Your task to perform on an android device: see tabs open on other devices in the chrome app Image 0: 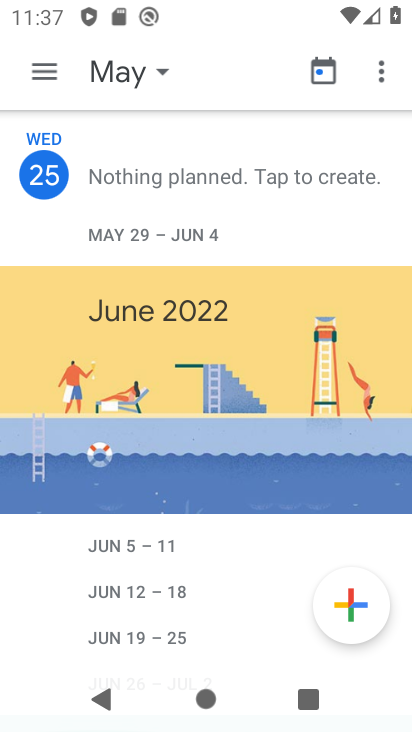
Step 0: press home button
Your task to perform on an android device: see tabs open on other devices in the chrome app Image 1: 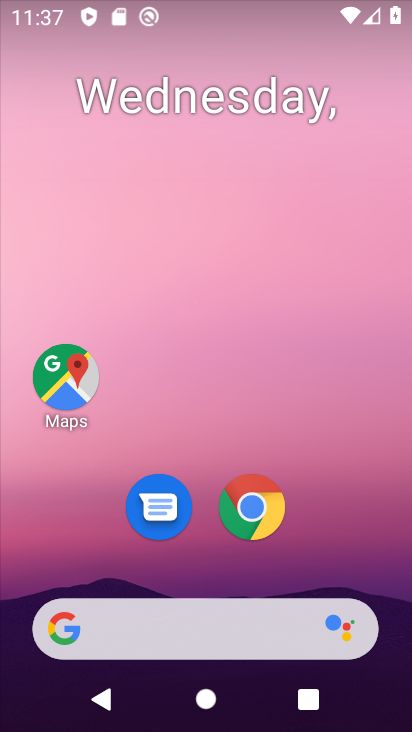
Step 1: click (228, 510)
Your task to perform on an android device: see tabs open on other devices in the chrome app Image 2: 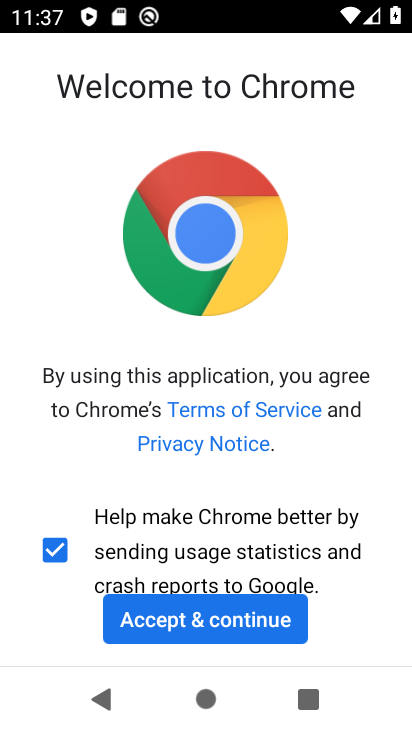
Step 2: click (194, 607)
Your task to perform on an android device: see tabs open on other devices in the chrome app Image 3: 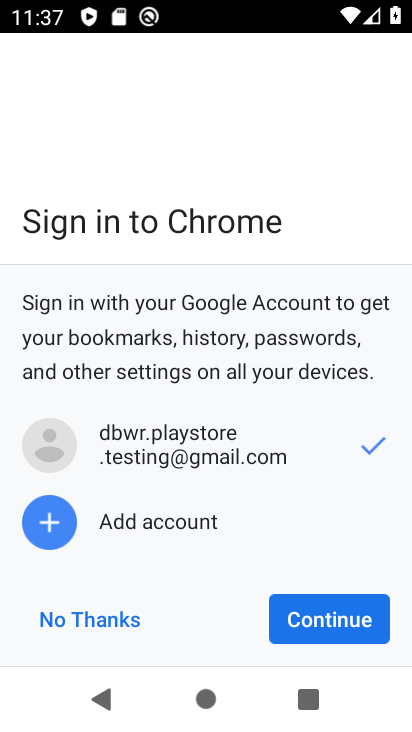
Step 3: click (288, 623)
Your task to perform on an android device: see tabs open on other devices in the chrome app Image 4: 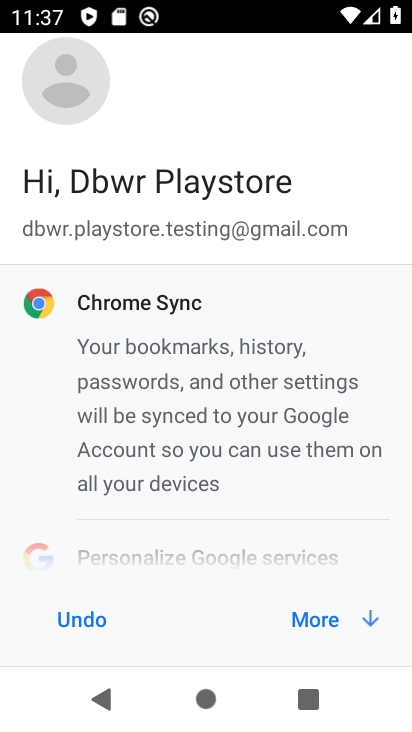
Step 4: click (343, 627)
Your task to perform on an android device: see tabs open on other devices in the chrome app Image 5: 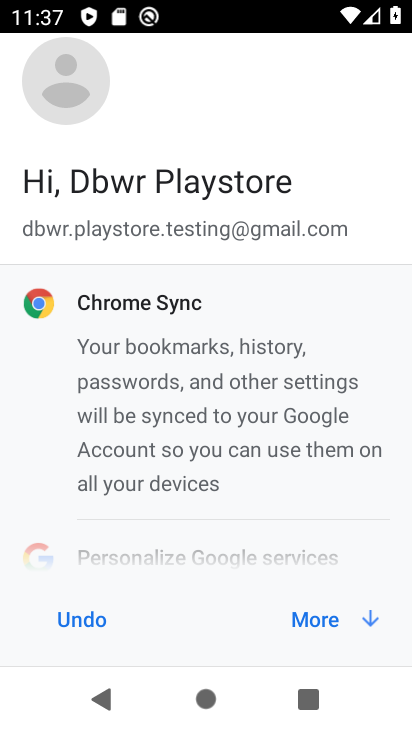
Step 5: click (343, 627)
Your task to perform on an android device: see tabs open on other devices in the chrome app Image 6: 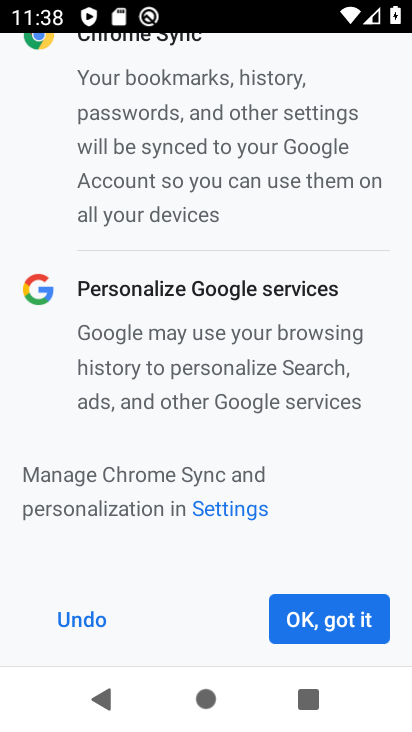
Step 6: click (343, 627)
Your task to perform on an android device: see tabs open on other devices in the chrome app Image 7: 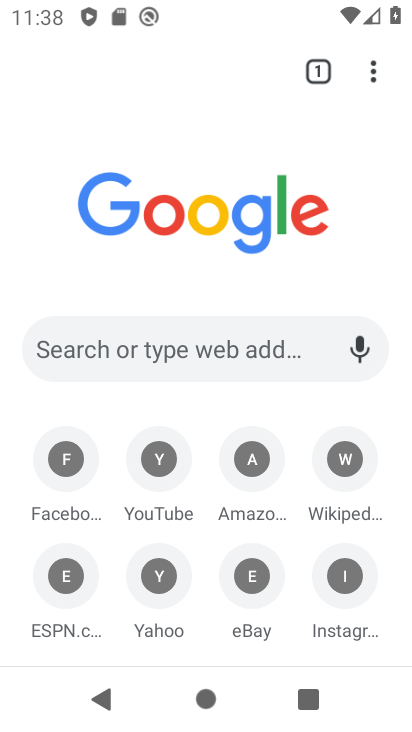
Step 7: click (380, 79)
Your task to perform on an android device: see tabs open on other devices in the chrome app Image 8: 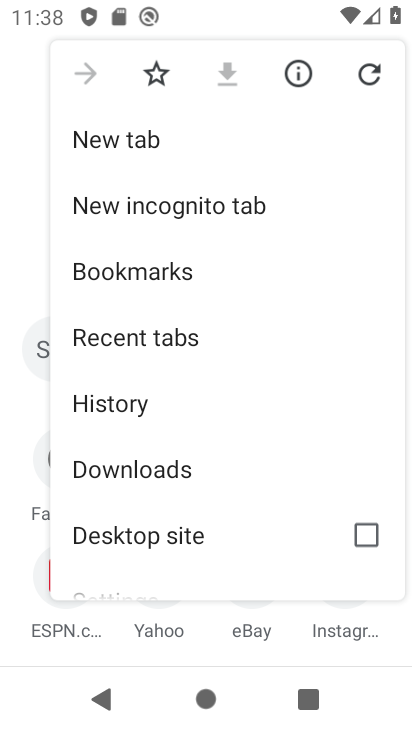
Step 8: click (227, 344)
Your task to perform on an android device: see tabs open on other devices in the chrome app Image 9: 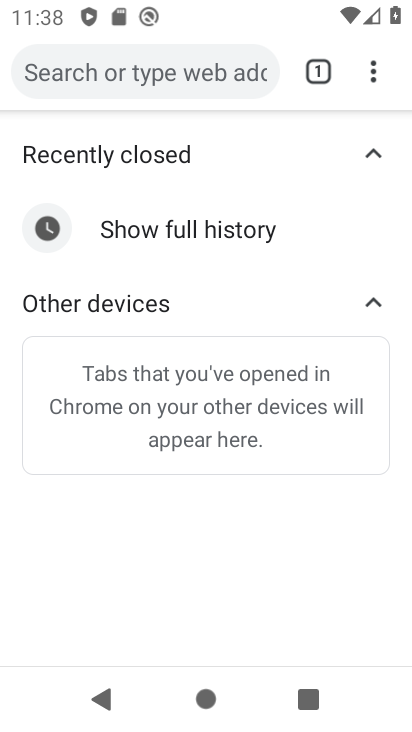
Step 9: task complete